Your task to perform on an android device: open app "Skype" (install if not already installed), go to login, and select forgot password Image 0: 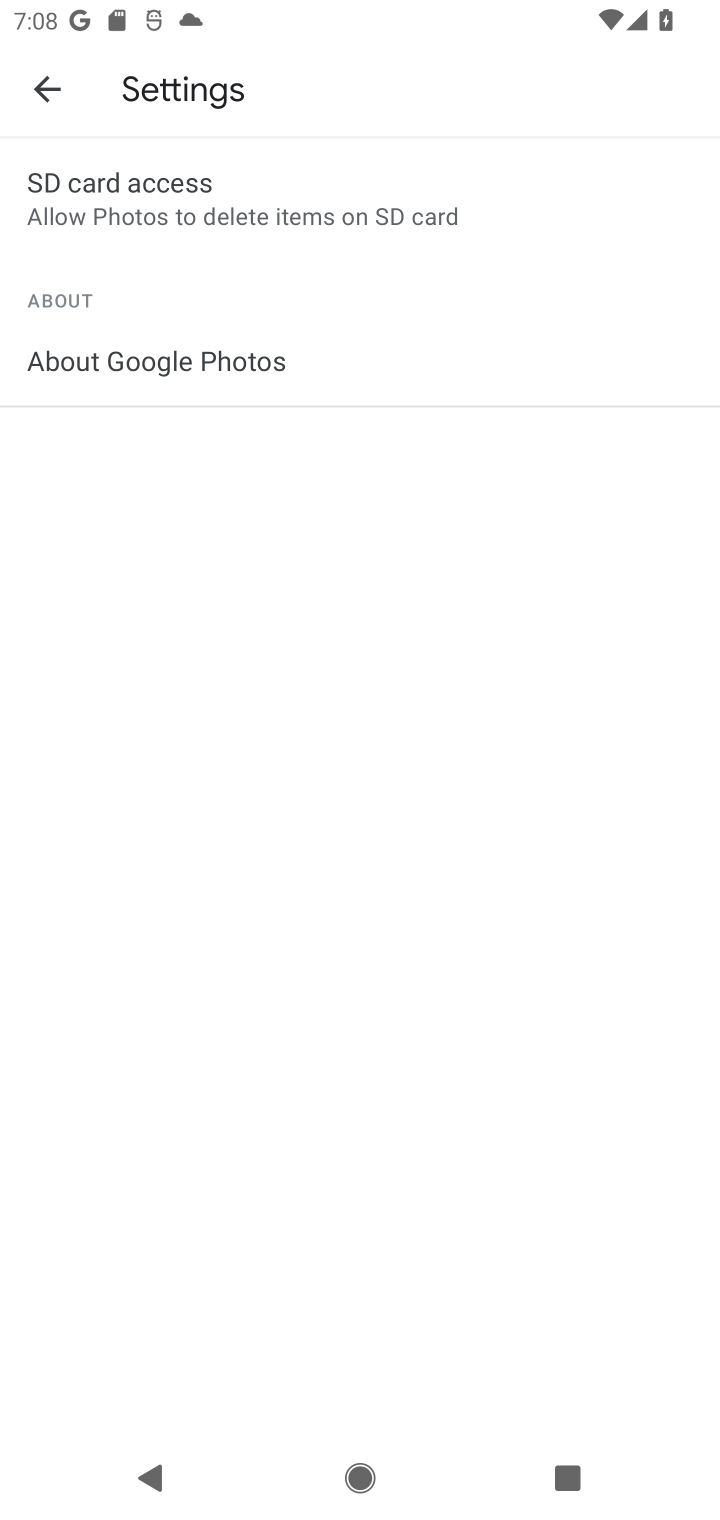
Step 0: press home button
Your task to perform on an android device: open app "Skype" (install if not already installed), go to login, and select forgot password Image 1: 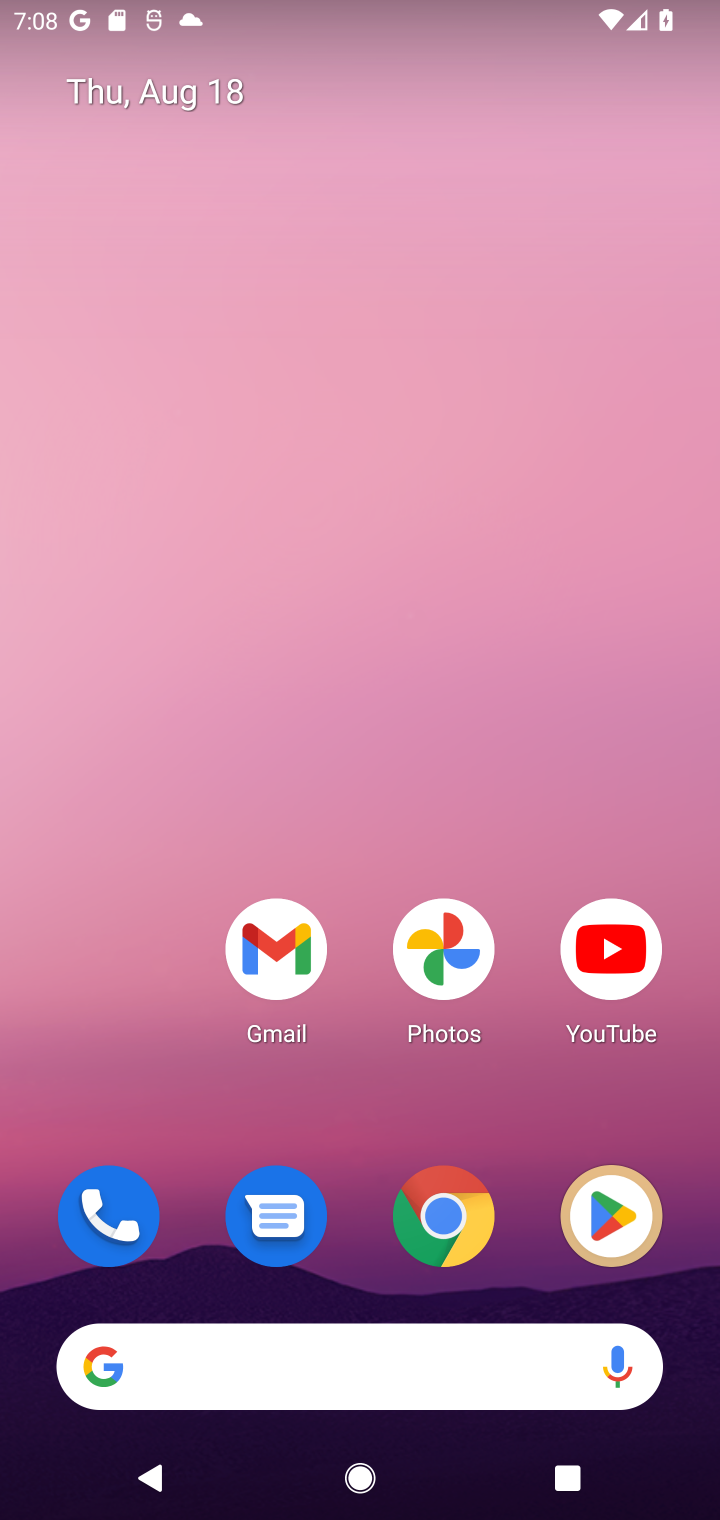
Step 1: click (613, 1219)
Your task to perform on an android device: open app "Skype" (install if not already installed), go to login, and select forgot password Image 2: 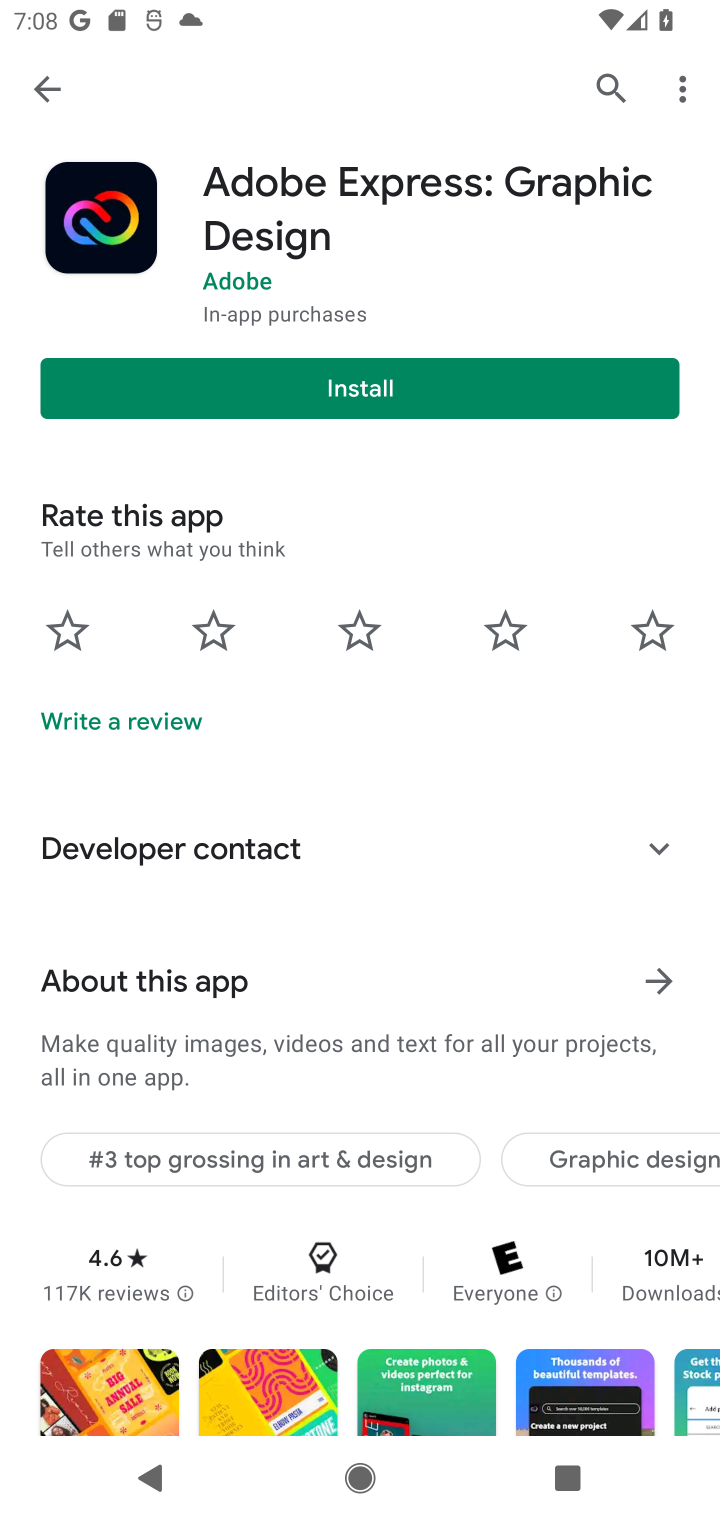
Step 2: click (603, 71)
Your task to perform on an android device: open app "Skype" (install if not already installed), go to login, and select forgot password Image 3: 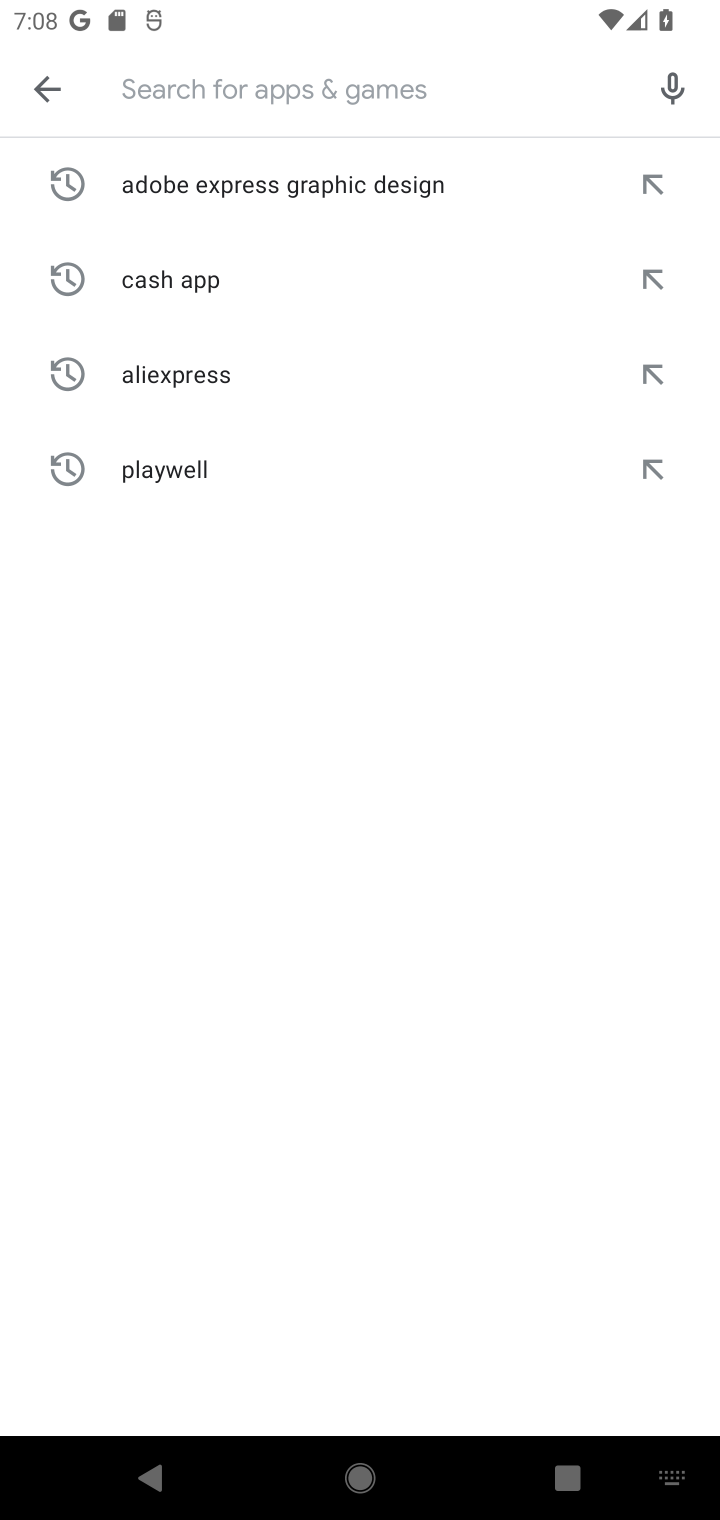
Step 3: type "Skype"
Your task to perform on an android device: open app "Skype" (install if not already installed), go to login, and select forgot password Image 4: 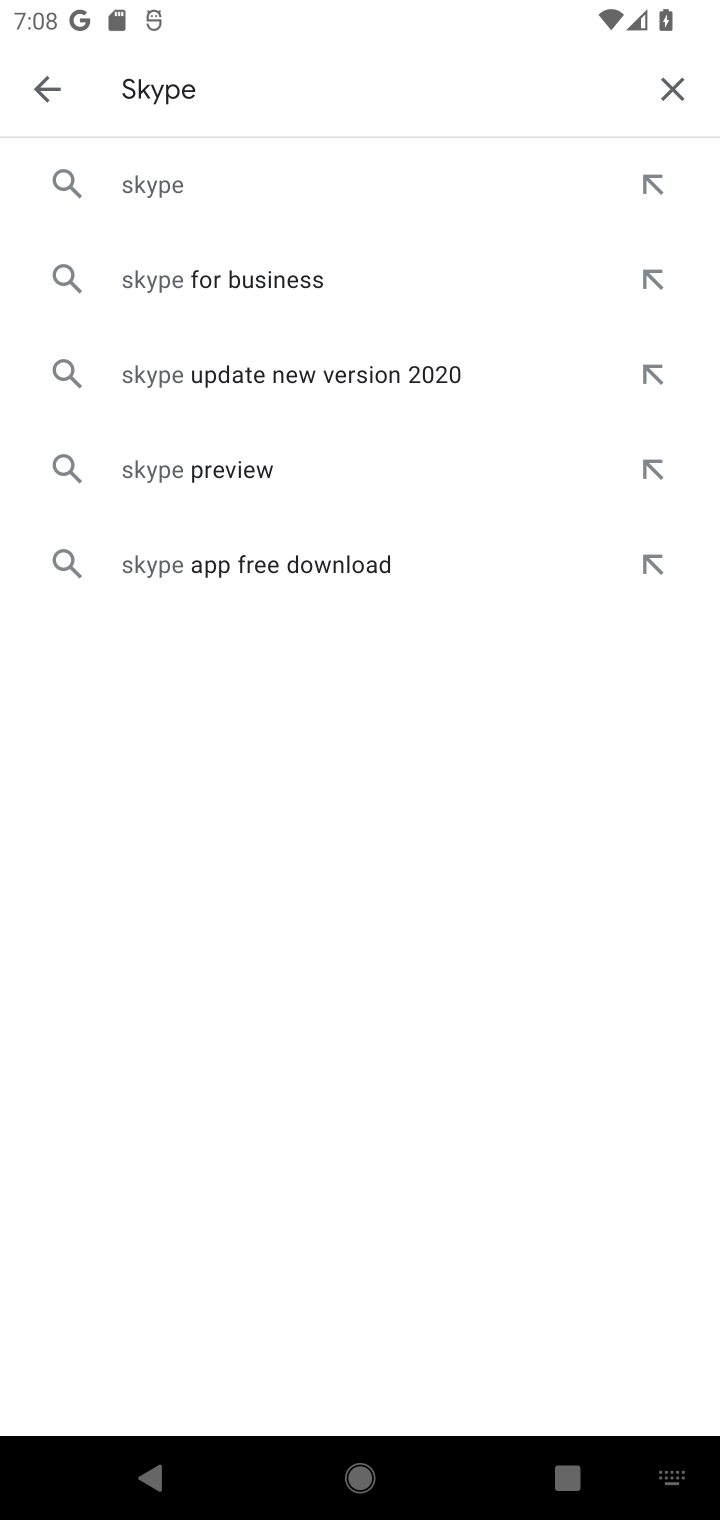
Step 4: click (153, 178)
Your task to perform on an android device: open app "Skype" (install if not already installed), go to login, and select forgot password Image 5: 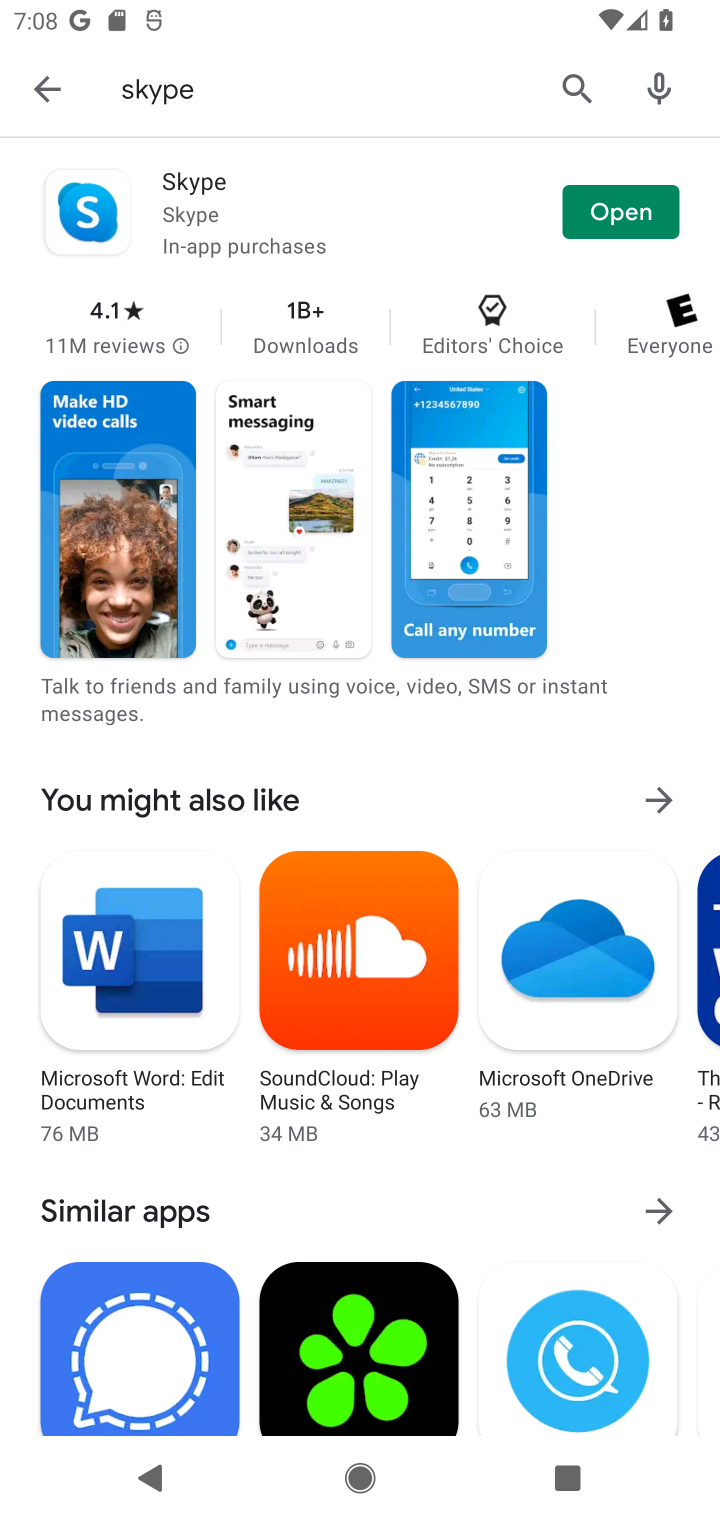
Step 5: click (623, 212)
Your task to perform on an android device: open app "Skype" (install if not already installed), go to login, and select forgot password Image 6: 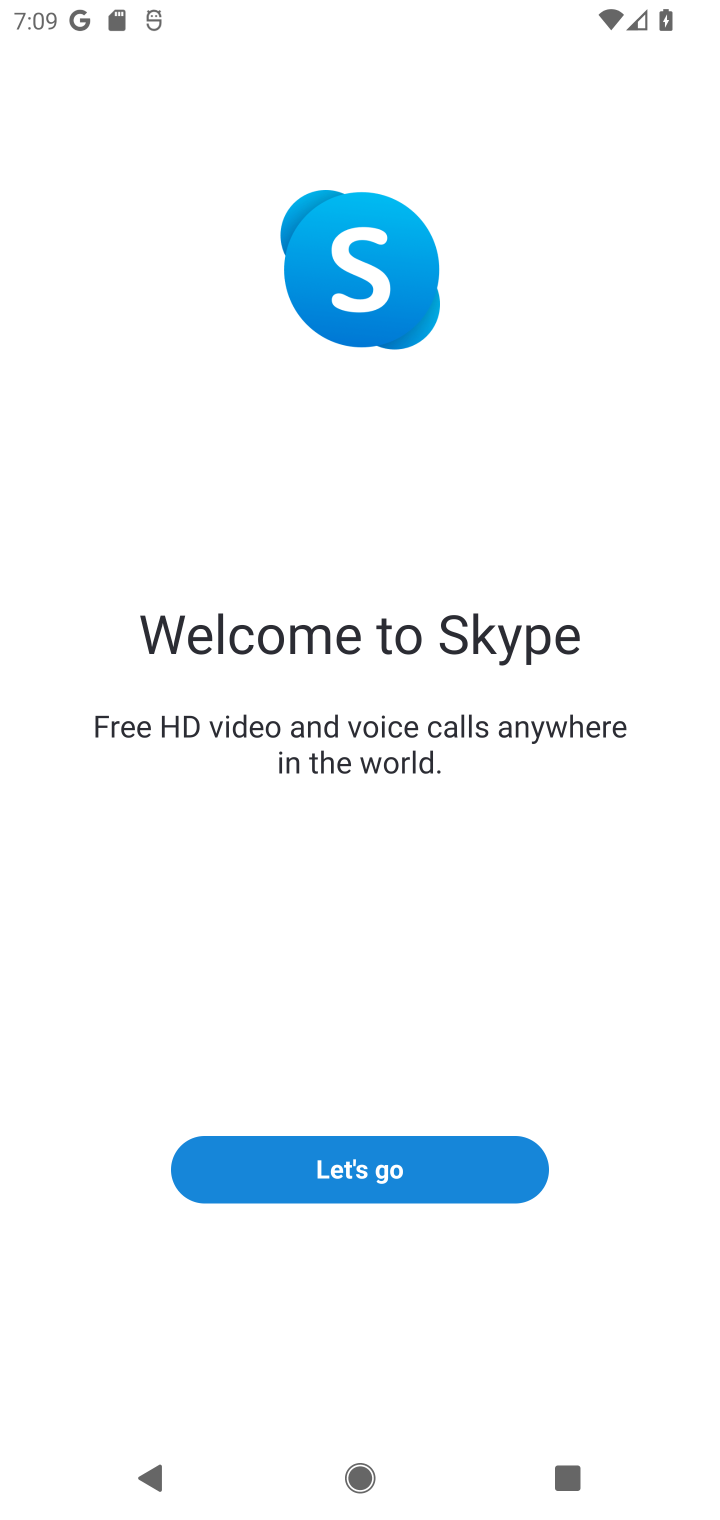
Step 6: click (357, 1168)
Your task to perform on an android device: open app "Skype" (install if not already installed), go to login, and select forgot password Image 7: 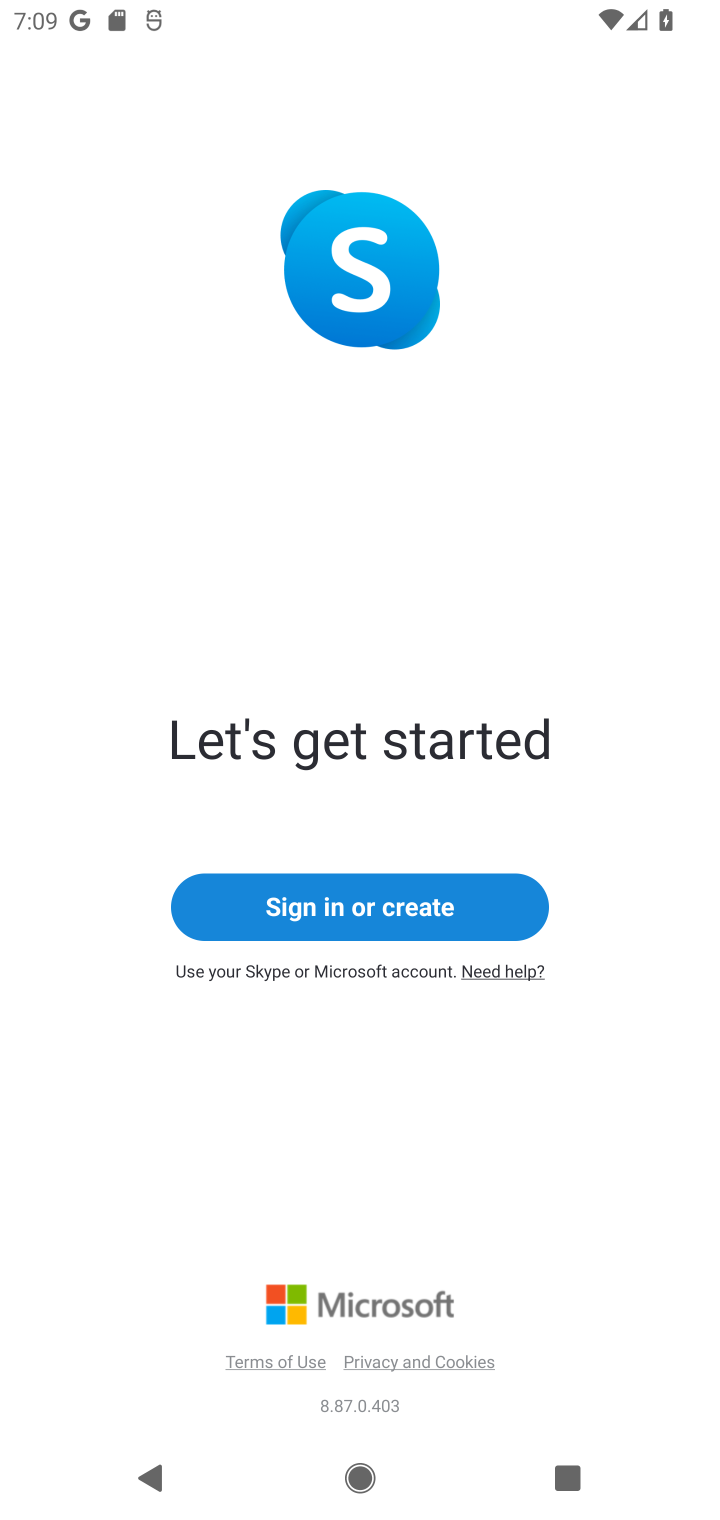
Step 7: click (341, 899)
Your task to perform on an android device: open app "Skype" (install if not already installed), go to login, and select forgot password Image 8: 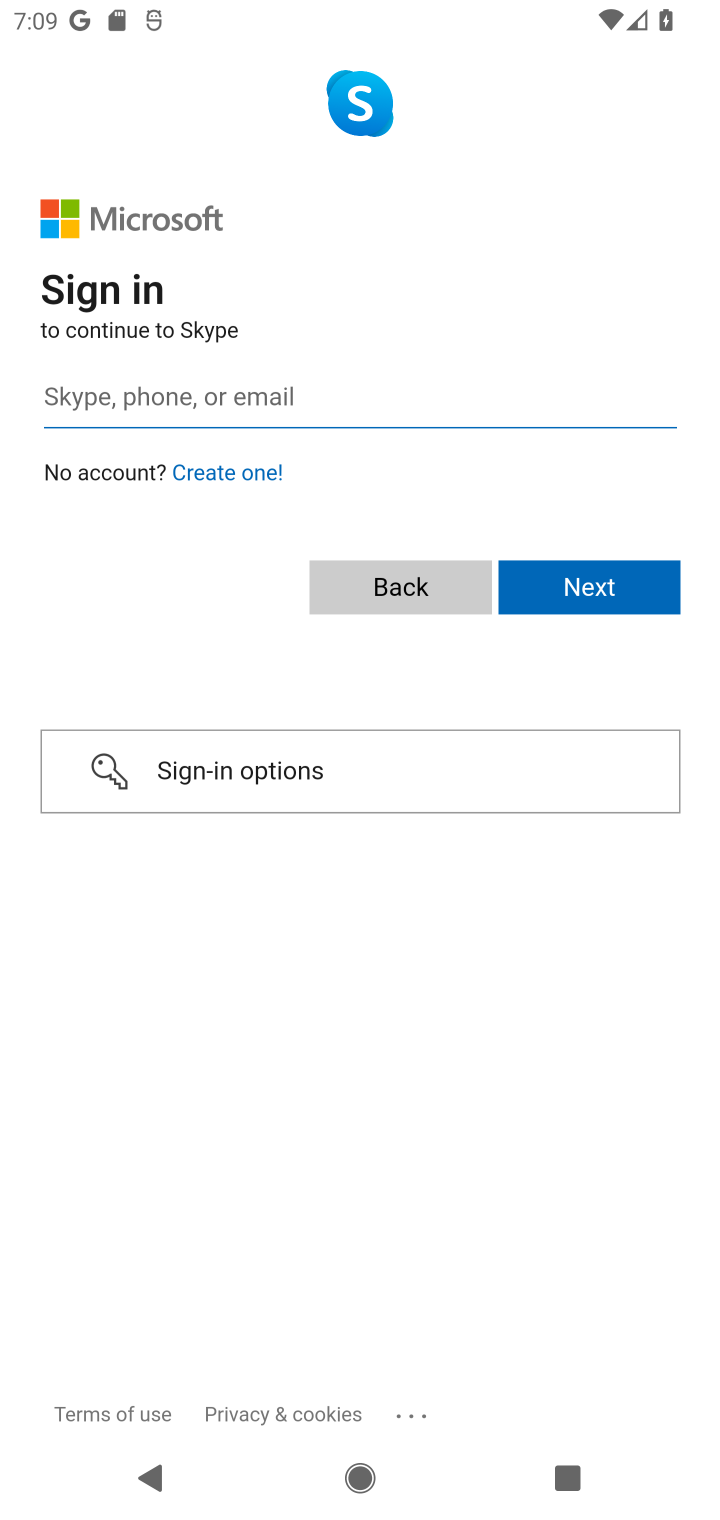
Step 8: click (224, 778)
Your task to perform on an android device: open app "Skype" (install if not already installed), go to login, and select forgot password Image 9: 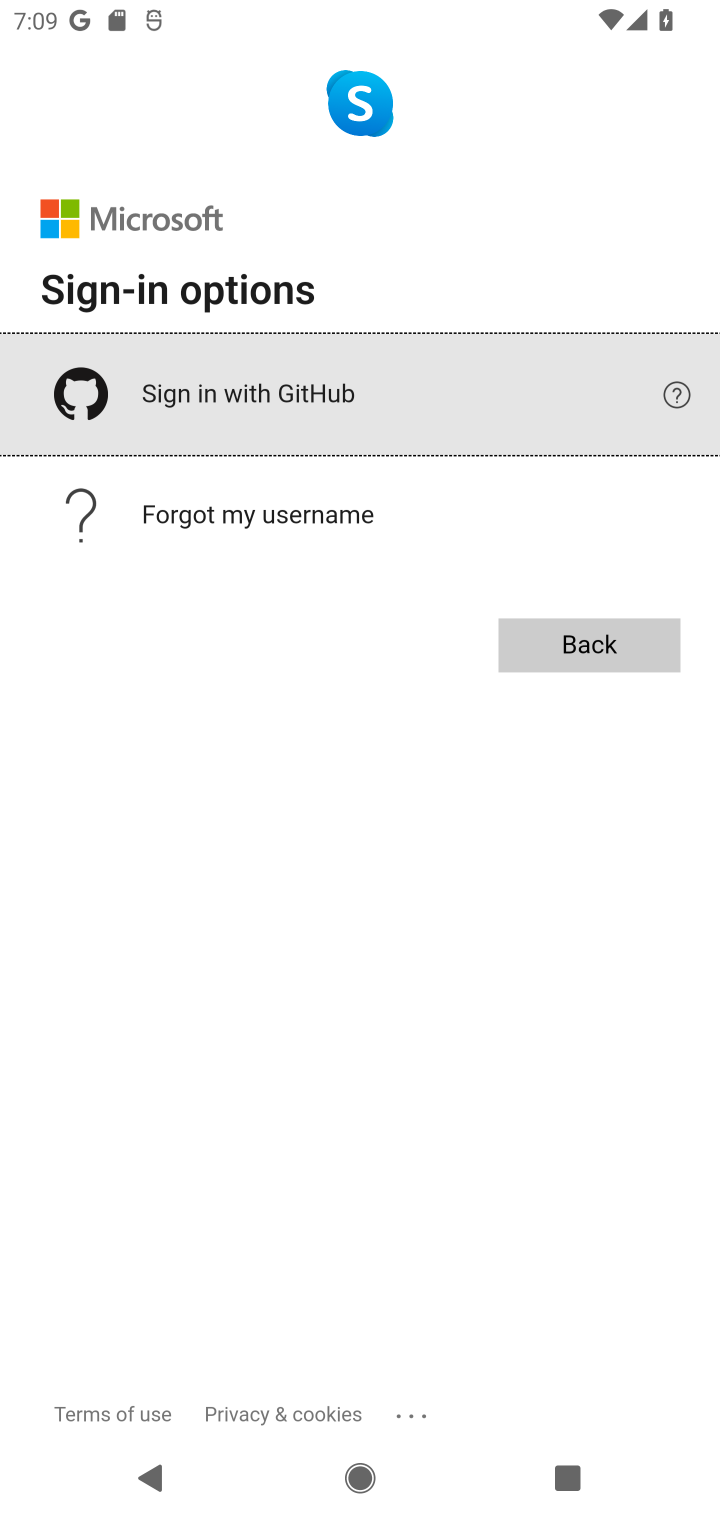
Step 9: click (230, 517)
Your task to perform on an android device: open app "Skype" (install if not already installed), go to login, and select forgot password Image 10: 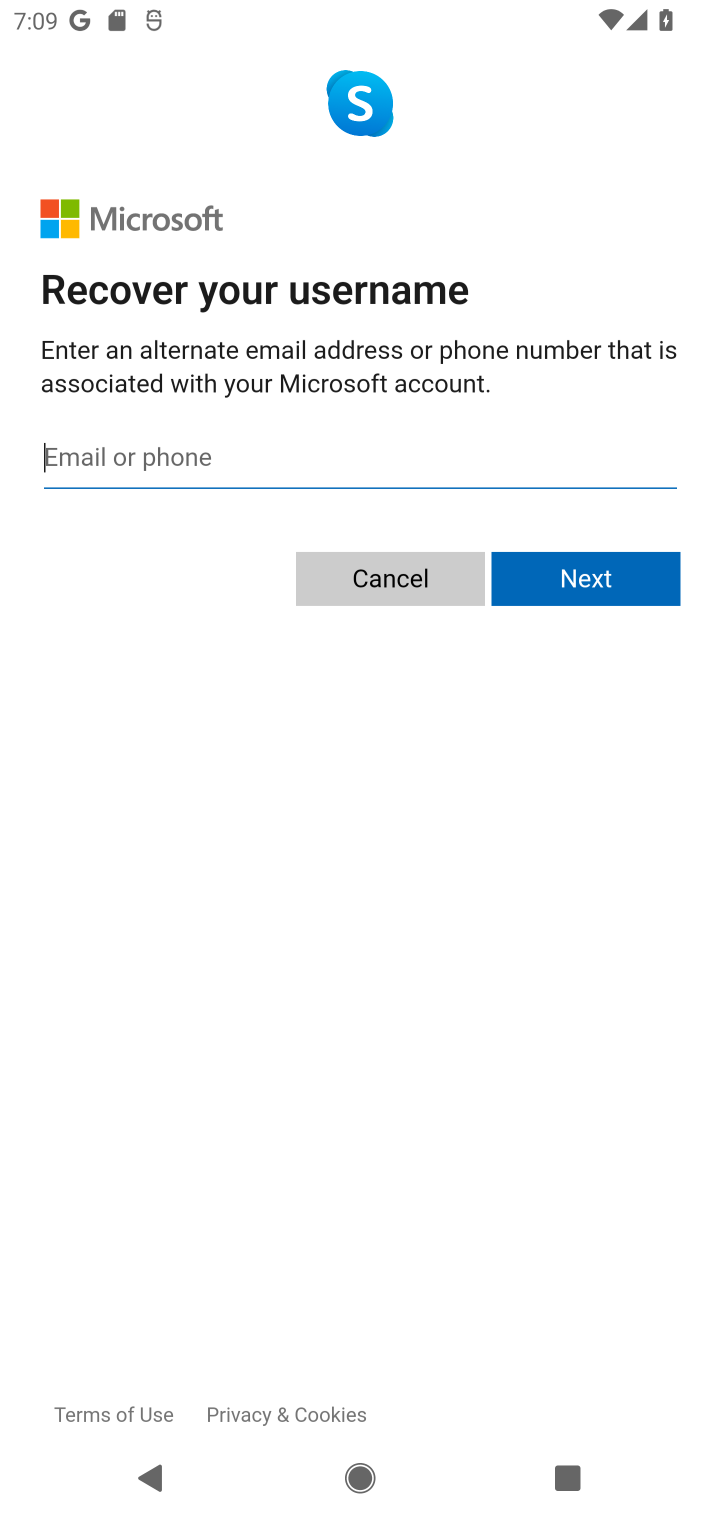
Step 10: task complete